Your task to perform on an android device: turn off wifi Image 0: 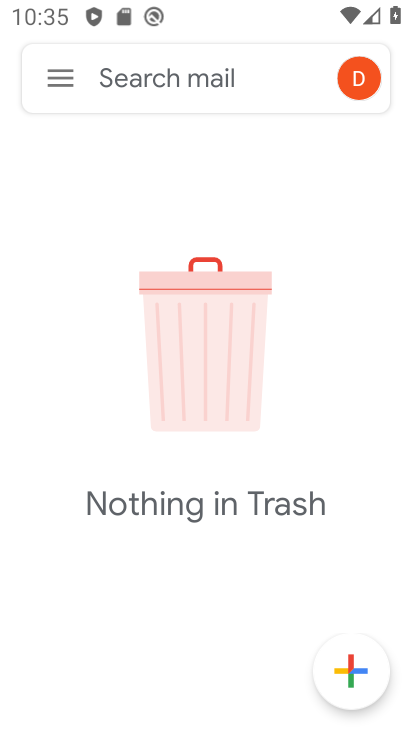
Step 0: press home button
Your task to perform on an android device: turn off wifi Image 1: 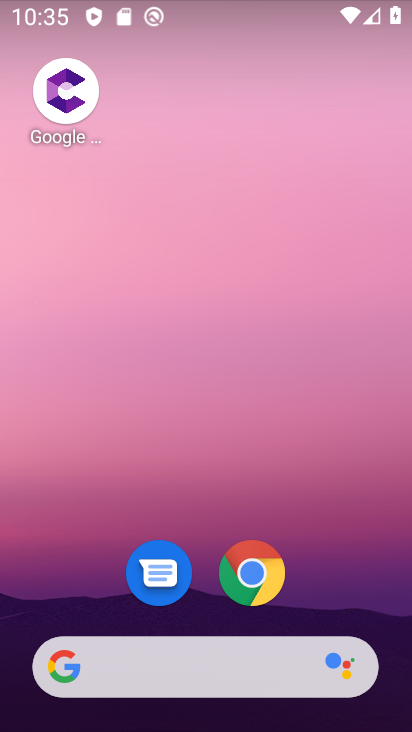
Step 1: drag from (263, 9) to (210, 514)
Your task to perform on an android device: turn off wifi Image 2: 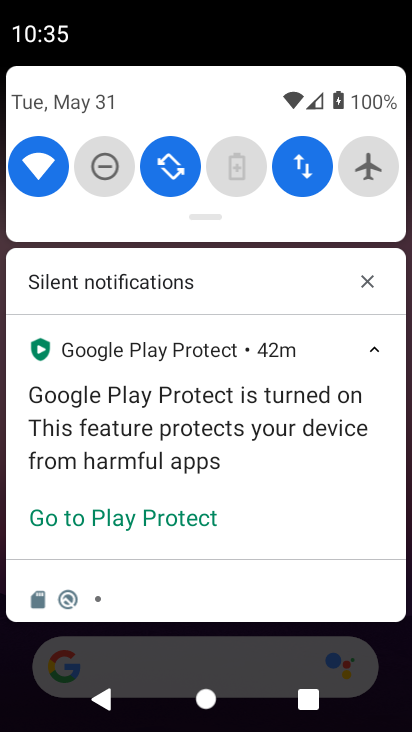
Step 2: click (33, 161)
Your task to perform on an android device: turn off wifi Image 3: 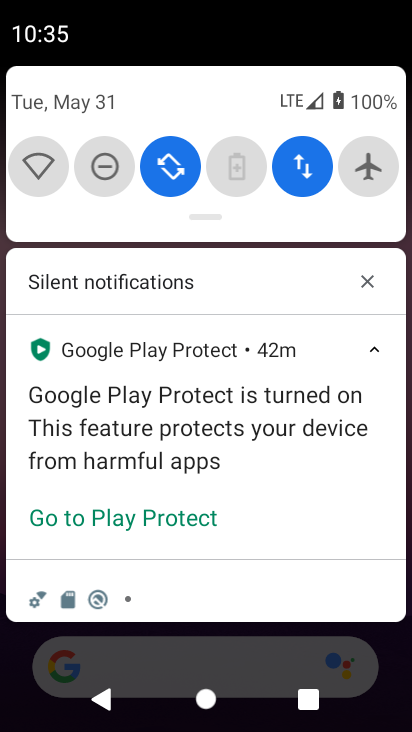
Step 3: task complete